Your task to perform on an android device: Open calendar and show me the fourth week of next month Image 0: 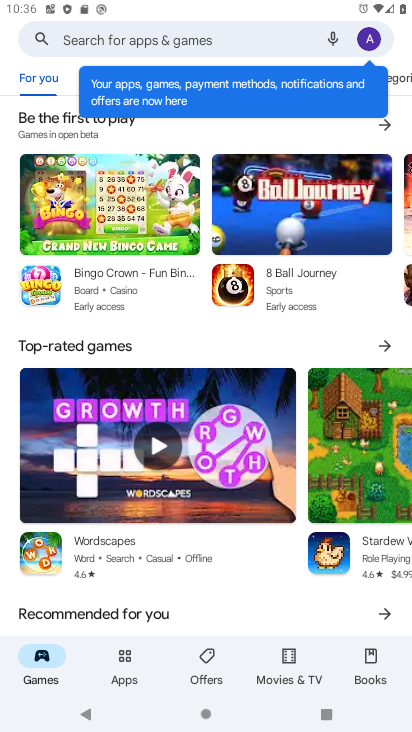
Step 0: press home button
Your task to perform on an android device: Open calendar and show me the fourth week of next month Image 1: 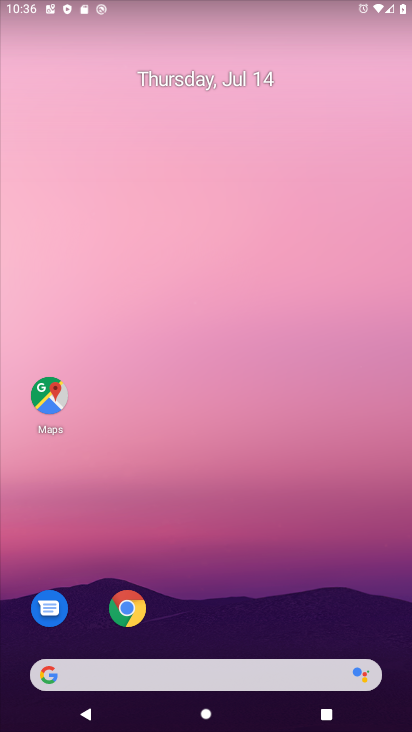
Step 1: drag from (232, 717) to (211, 143)
Your task to perform on an android device: Open calendar and show me the fourth week of next month Image 2: 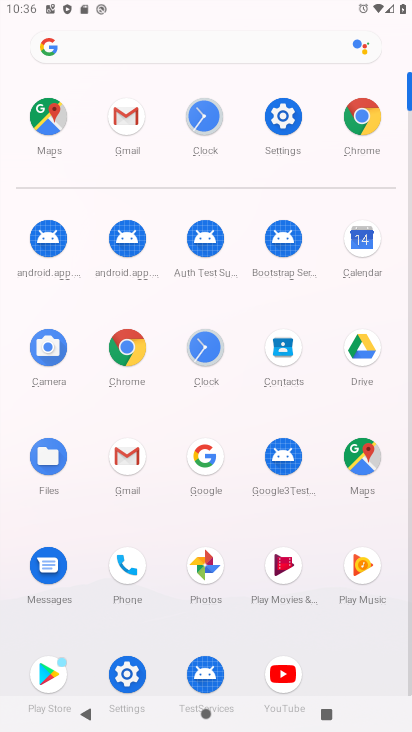
Step 2: click (363, 234)
Your task to perform on an android device: Open calendar and show me the fourth week of next month Image 3: 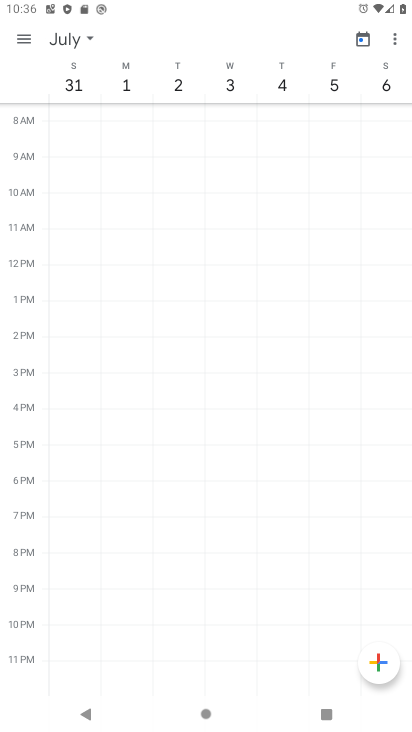
Step 3: click (88, 42)
Your task to perform on an android device: Open calendar and show me the fourth week of next month Image 4: 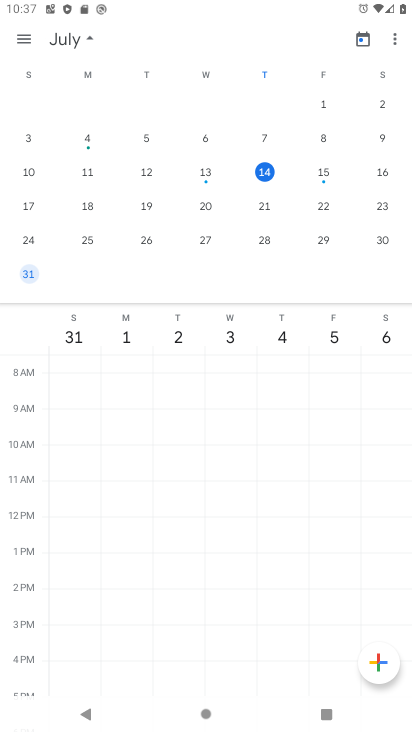
Step 4: drag from (337, 195) to (55, 208)
Your task to perform on an android device: Open calendar and show me the fourth week of next month Image 5: 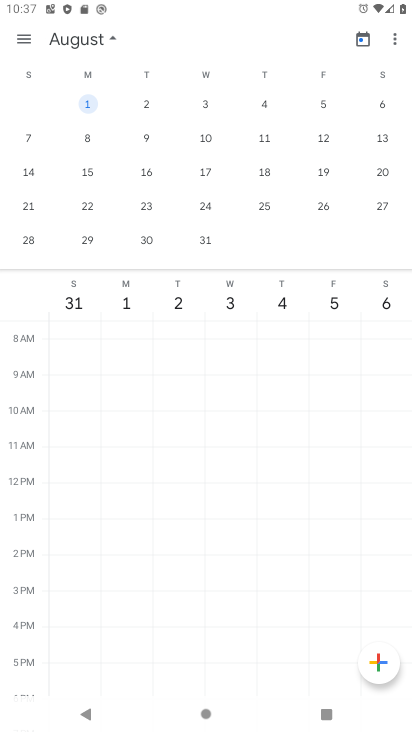
Step 5: click (90, 210)
Your task to perform on an android device: Open calendar and show me the fourth week of next month Image 6: 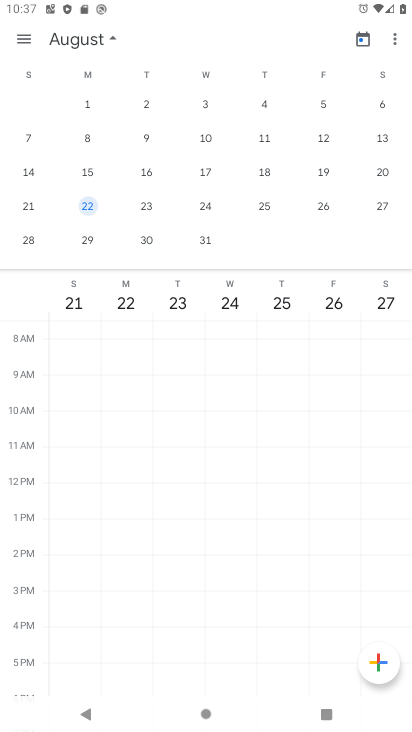
Step 6: click (22, 41)
Your task to perform on an android device: Open calendar and show me the fourth week of next month Image 7: 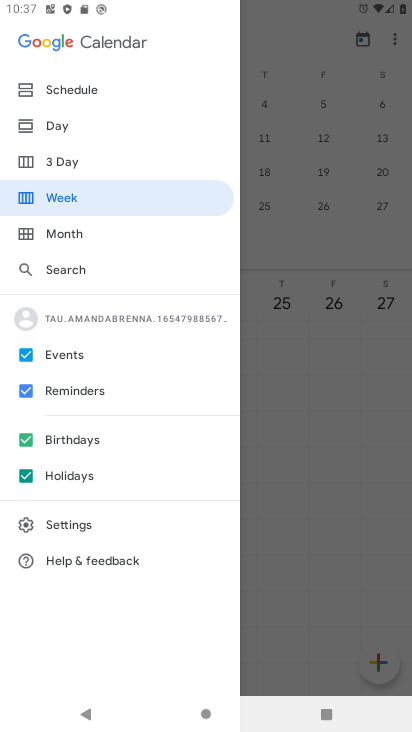
Step 7: click (66, 199)
Your task to perform on an android device: Open calendar and show me the fourth week of next month Image 8: 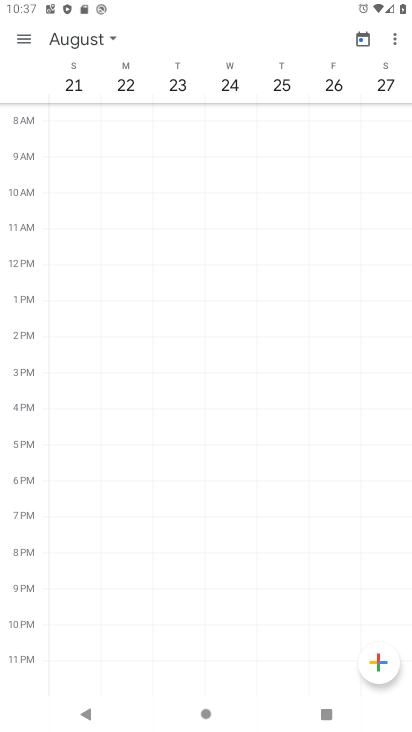
Step 8: task complete